Your task to perform on an android device: Add logitech g pro to the cart on walmart, then select checkout. Image 0: 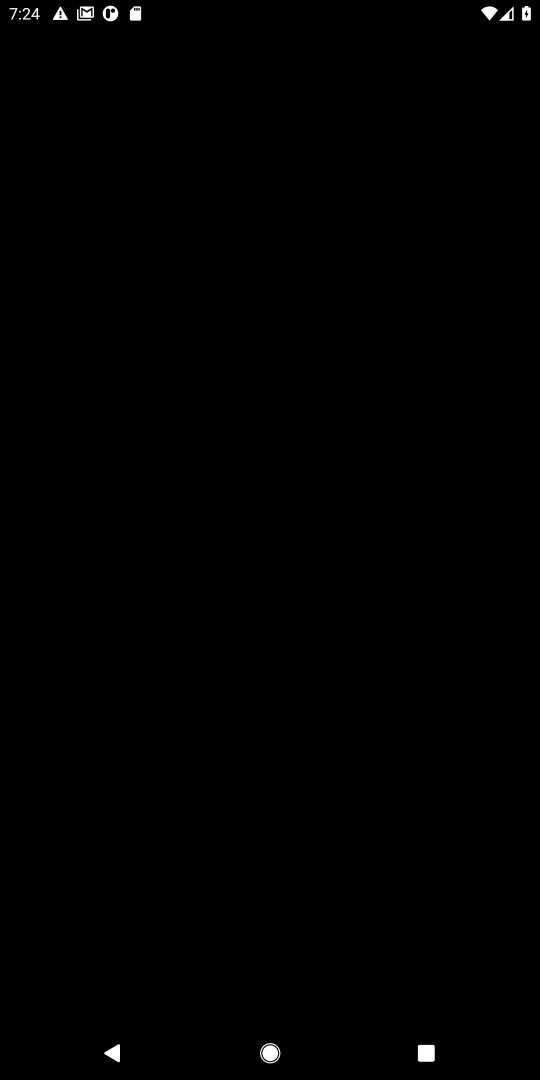
Step 0: press home button
Your task to perform on an android device: Add logitech g pro to the cart on walmart, then select checkout. Image 1: 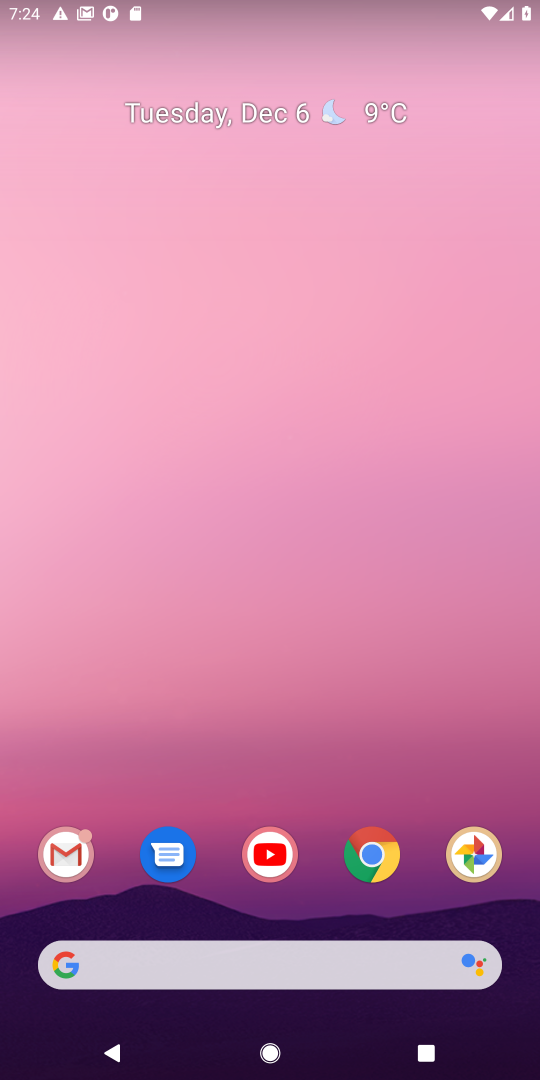
Step 1: click (357, 855)
Your task to perform on an android device: Add logitech g pro to the cart on walmart, then select checkout. Image 2: 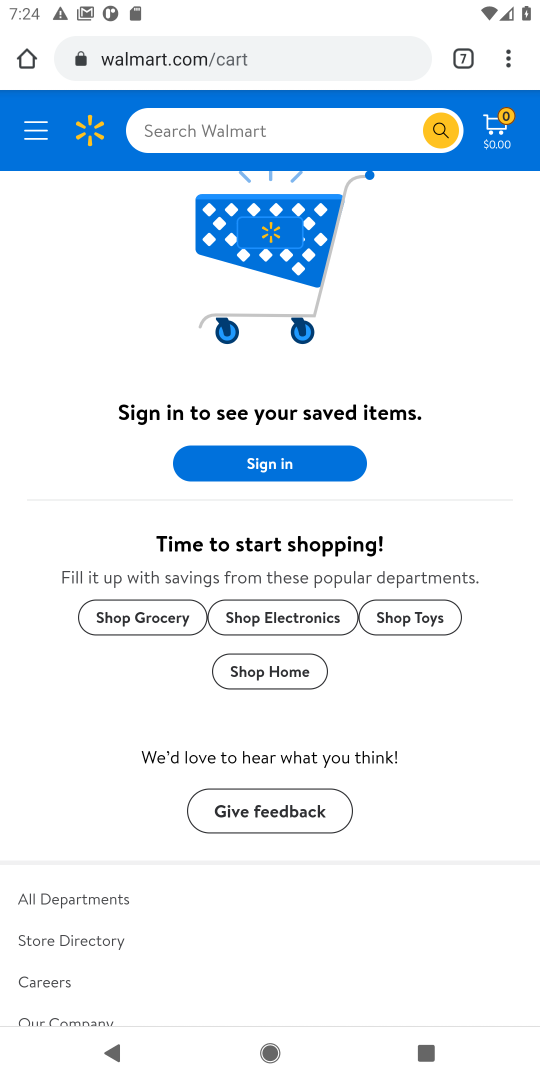
Step 2: click (274, 128)
Your task to perform on an android device: Add logitech g pro to the cart on walmart, then select checkout. Image 3: 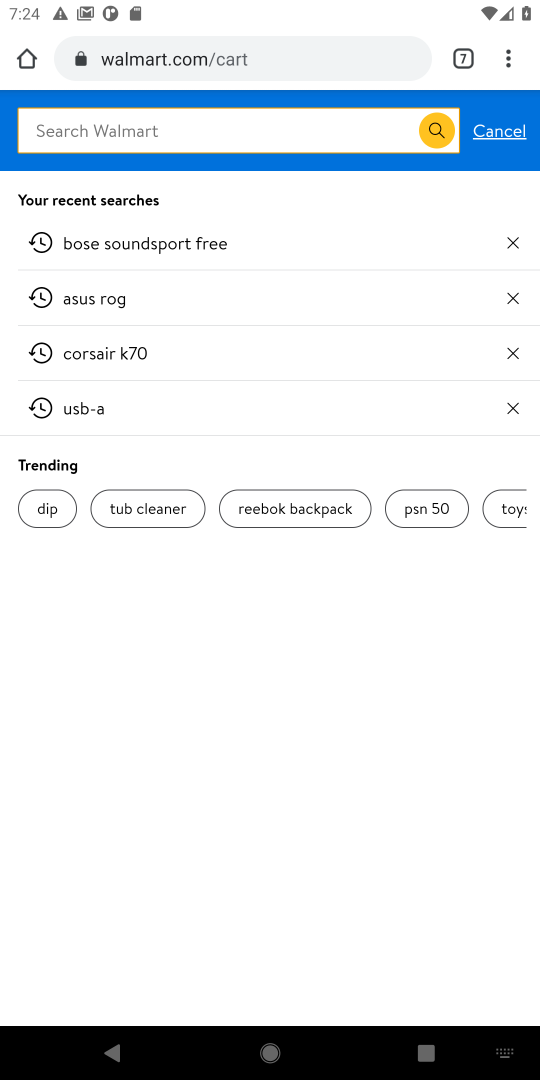
Step 3: type "logitech g pro"
Your task to perform on an android device: Add logitech g pro to the cart on walmart, then select checkout. Image 4: 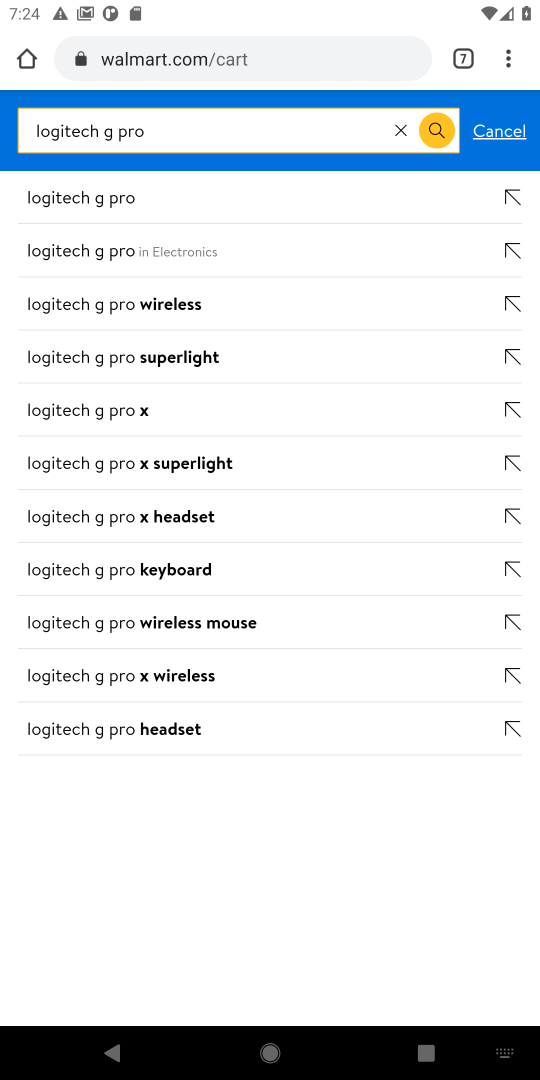
Step 4: click (92, 253)
Your task to perform on an android device: Add logitech g pro to the cart on walmart, then select checkout. Image 5: 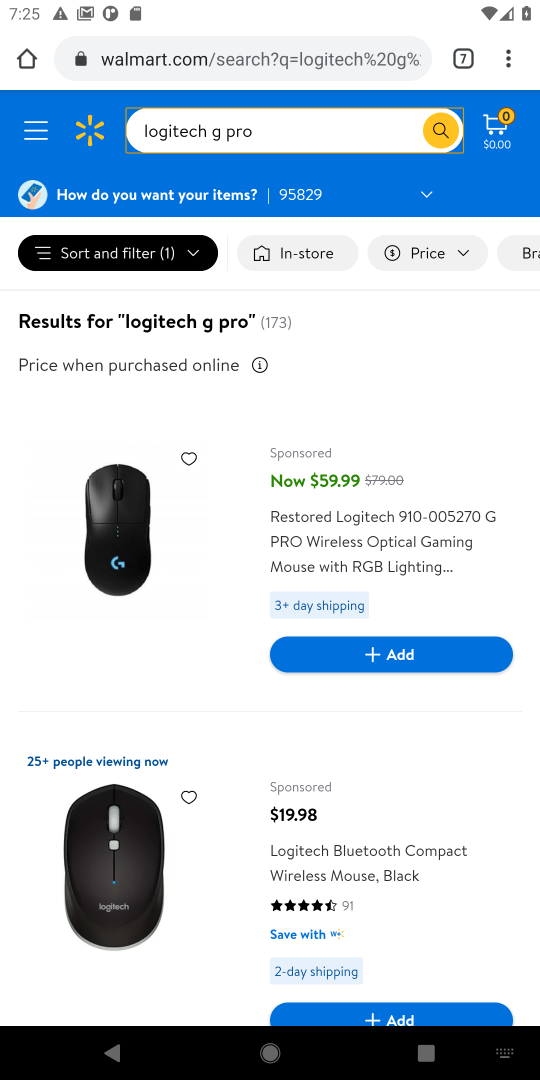
Step 5: drag from (405, 904) to (374, 328)
Your task to perform on an android device: Add logitech g pro to the cart on walmart, then select checkout. Image 6: 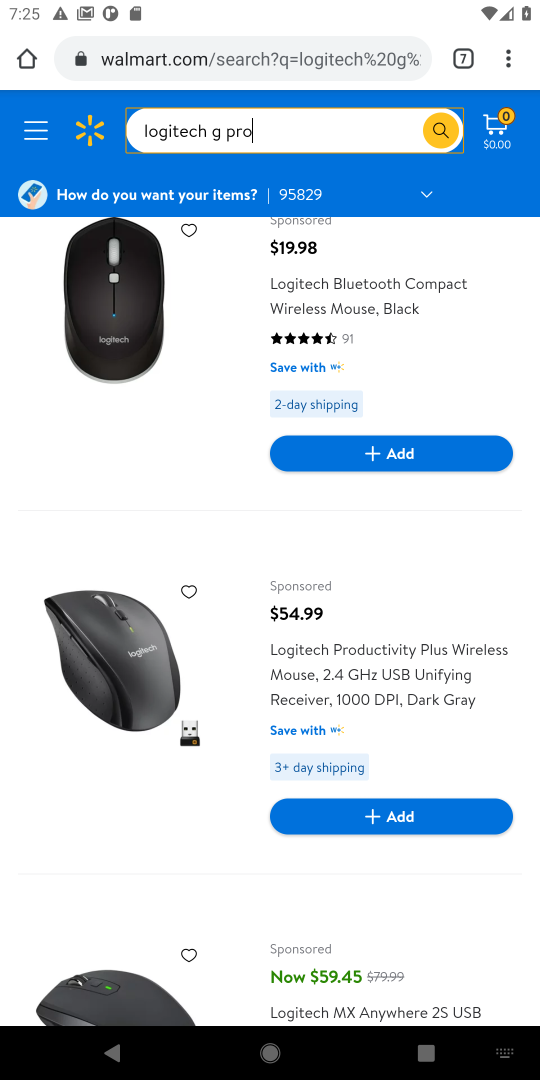
Step 6: drag from (220, 309) to (268, 906)
Your task to perform on an android device: Add logitech g pro to the cart on walmart, then select checkout. Image 7: 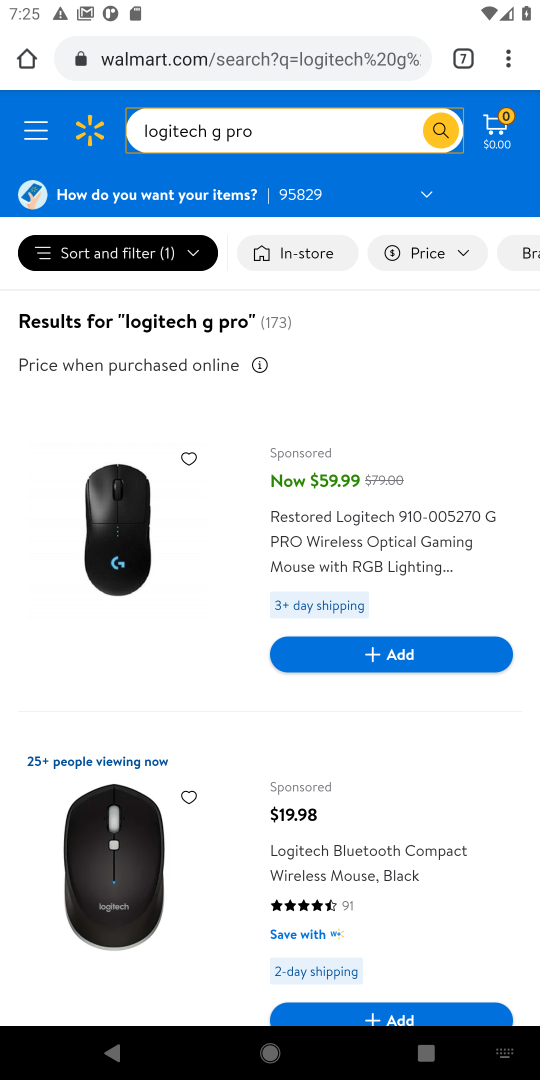
Step 7: click (381, 649)
Your task to perform on an android device: Add logitech g pro to the cart on walmart, then select checkout. Image 8: 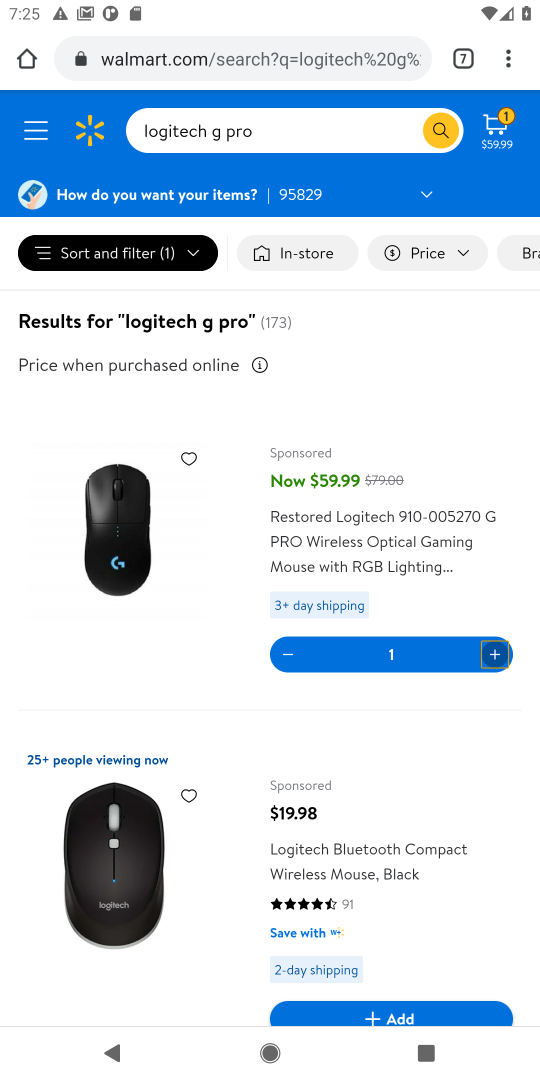
Step 8: task complete